Your task to perform on an android device: delete browsing data in the chrome app Image 0: 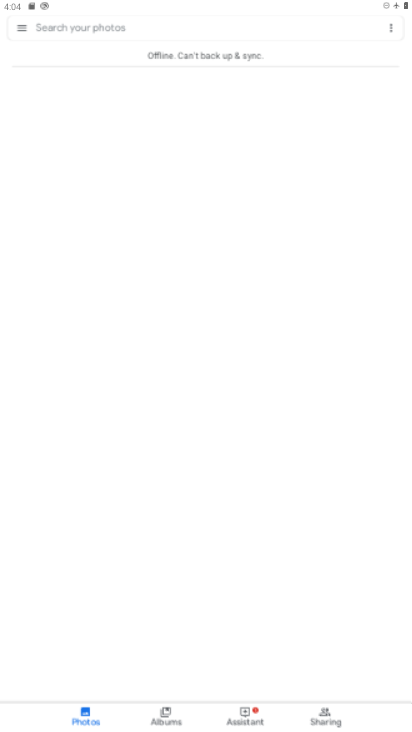
Step 0: press home button
Your task to perform on an android device: delete browsing data in the chrome app Image 1: 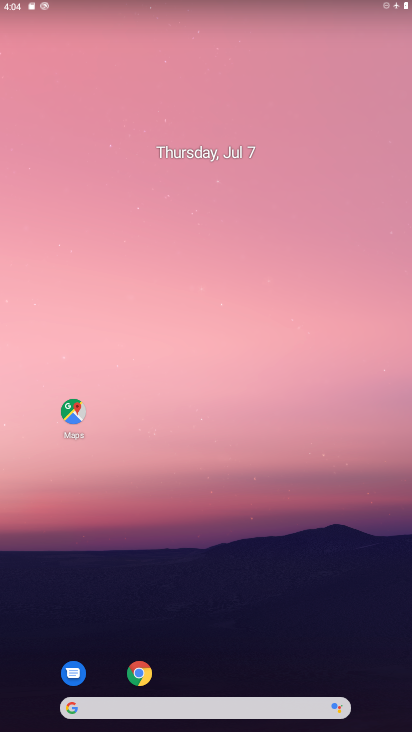
Step 1: click (137, 669)
Your task to perform on an android device: delete browsing data in the chrome app Image 2: 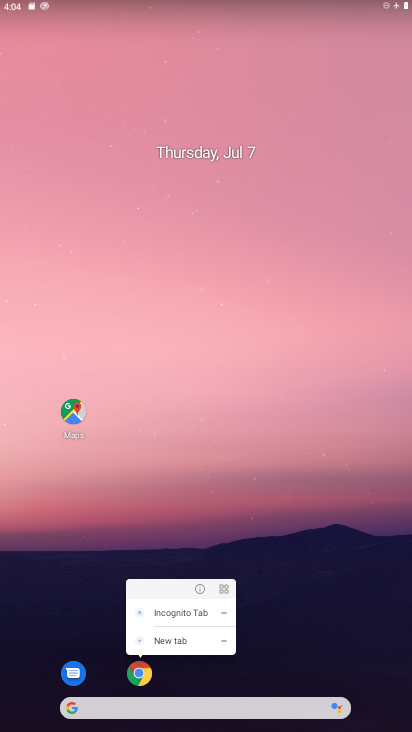
Step 2: click (137, 669)
Your task to perform on an android device: delete browsing data in the chrome app Image 3: 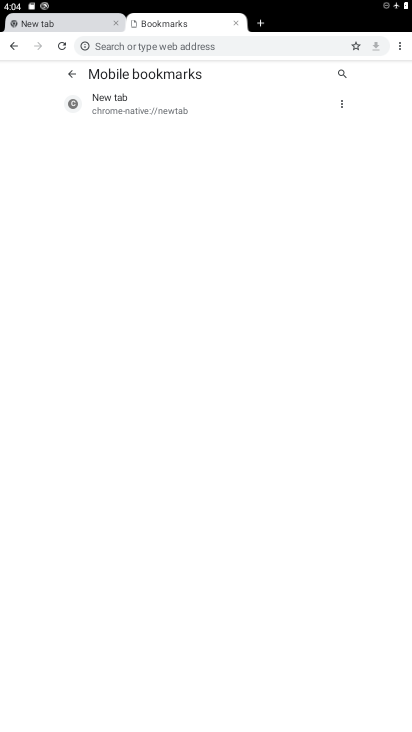
Step 3: click (236, 23)
Your task to perform on an android device: delete browsing data in the chrome app Image 4: 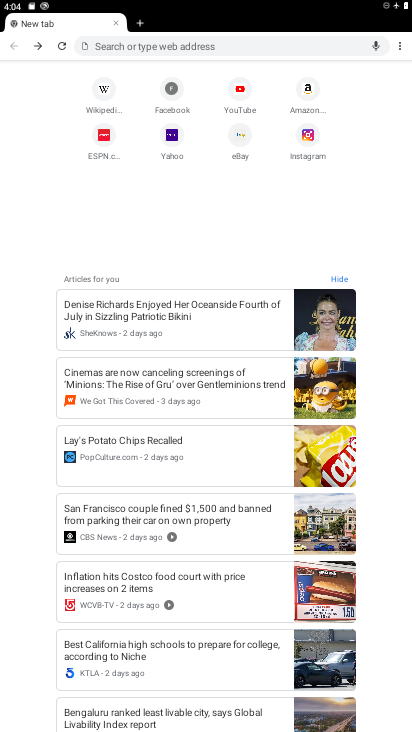
Step 4: click (400, 44)
Your task to perform on an android device: delete browsing data in the chrome app Image 5: 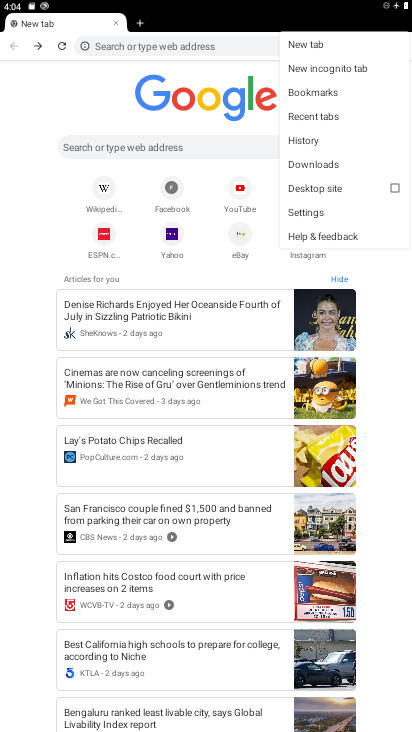
Step 5: click (323, 137)
Your task to perform on an android device: delete browsing data in the chrome app Image 6: 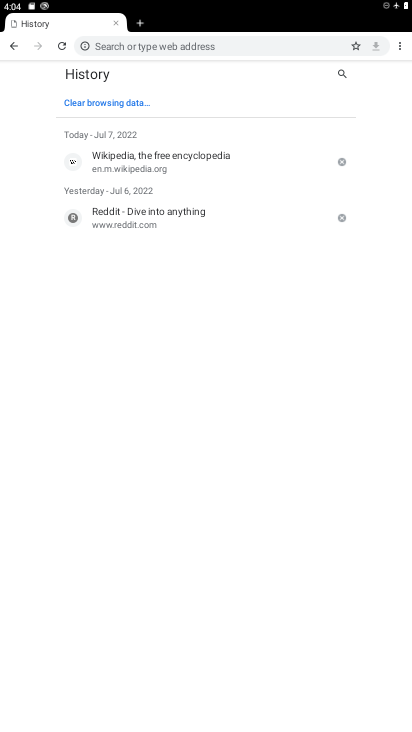
Step 6: click (138, 103)
Your task to perform on an android device: delete browsing data in the chrome app Image 7: 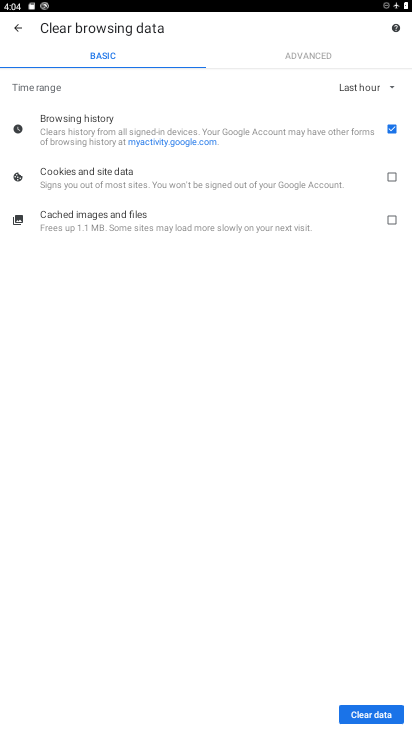
Step 7: click (390, 174)
Your task to perform on an android device: delete browsing data in the chrome app Image 8: 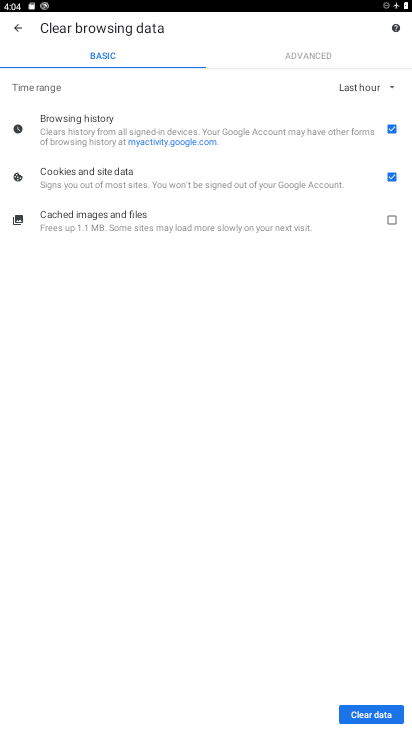
Step 8: click (387, 216)
Your task to perform on an android device: delete browsing data in the chrome app Image 9: 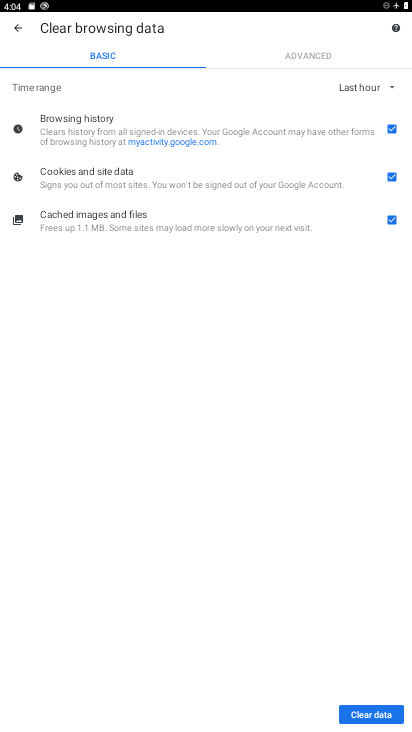
Step 9: click (388, 86)
Your task to perform on an android device: delete browsing data in the chrome app Image 10: 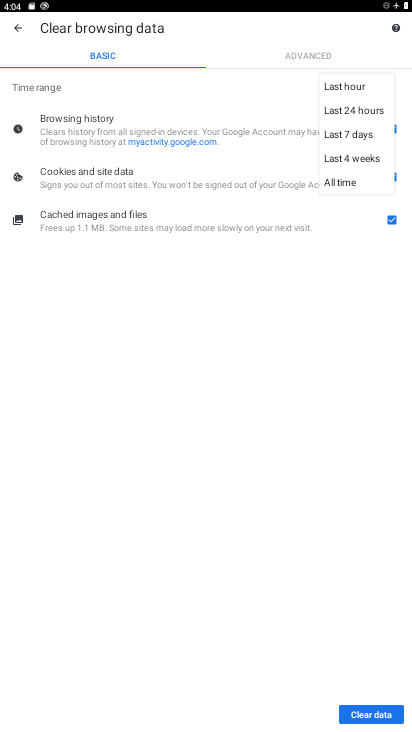
Step 10: click (361, 184)
Your task to perform on an android device: delete browsing data in the chrome app Image 11: 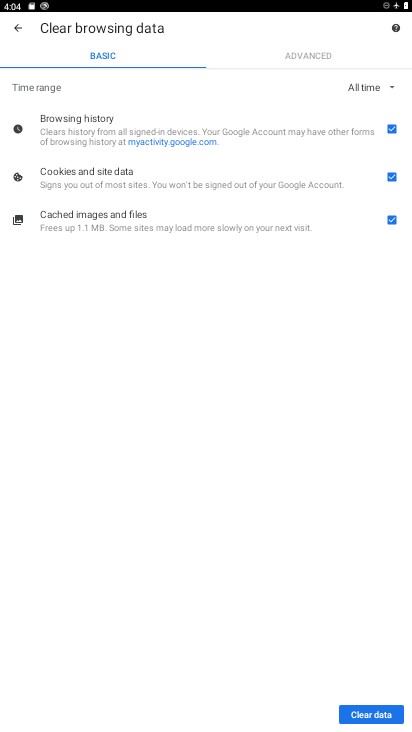
Step 11: click (369, 711)
Your task to perform on an android device: delete browsing data in the chrome app Image 12: 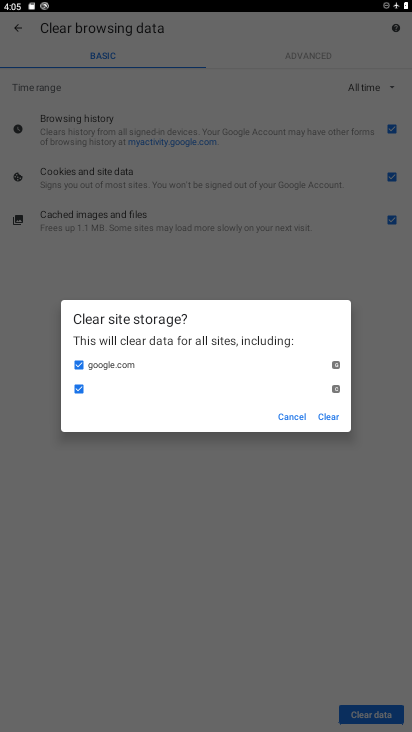
Step 12: click (326, 417)
Your task to perform on an android device: delete browsing data in the chrome app Image 13: 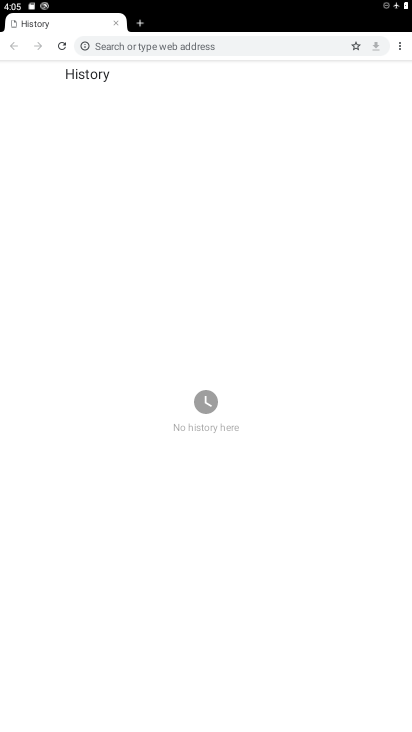
Step 13: task complete